Your task to perform on an android device: check storage Image 0: 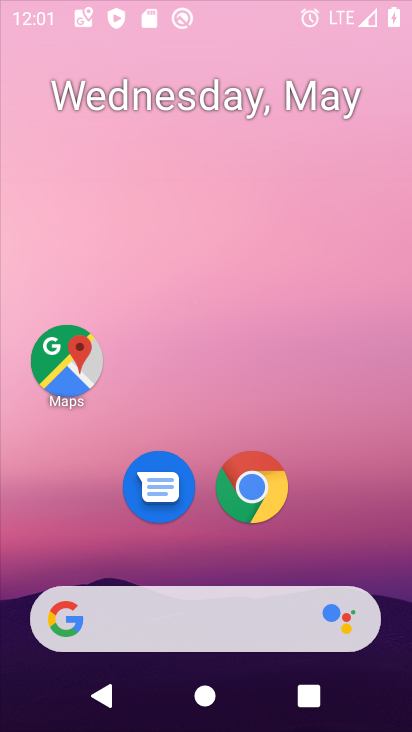
Step 0: click (195, 228)
Your task to perform on an android device: check storage Image 1: 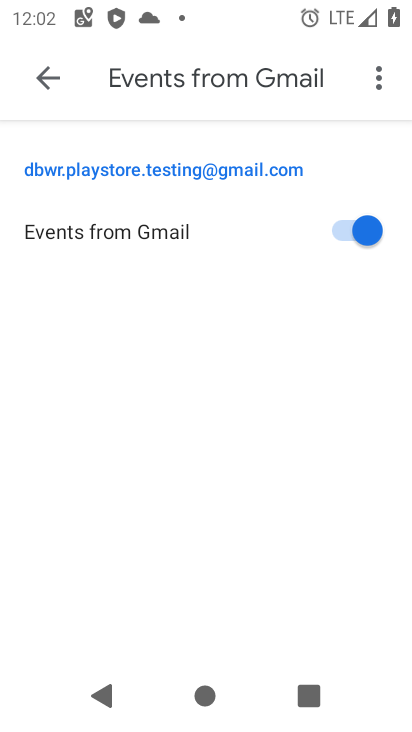
Step 1: drag from (183, 440) to (265, 232)
Your task to perform on an android device: check storage Image 2: 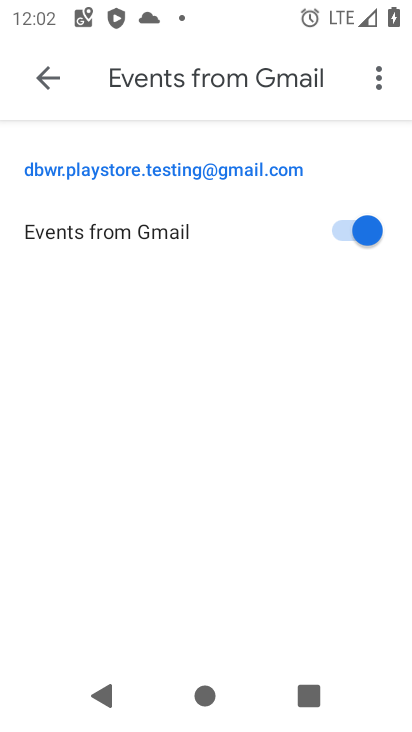
Step 2: press home button
Your task to perform on an android device: check storage Image 3: 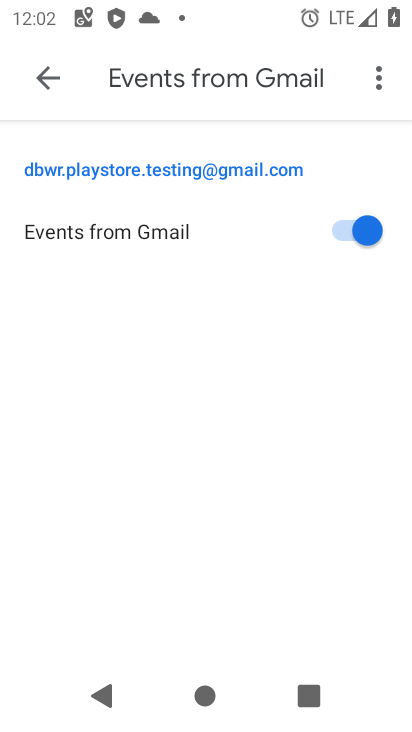
Step 3: drag from (133, 564) to (202, 46)
Your task to perform on an android device: check storage Image 4: 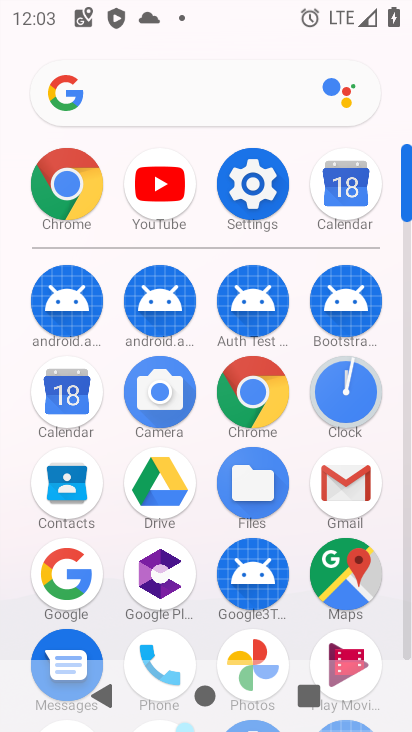
Step 4: click (231, 198)
Your task to perform on an android device: check storage Image 5: 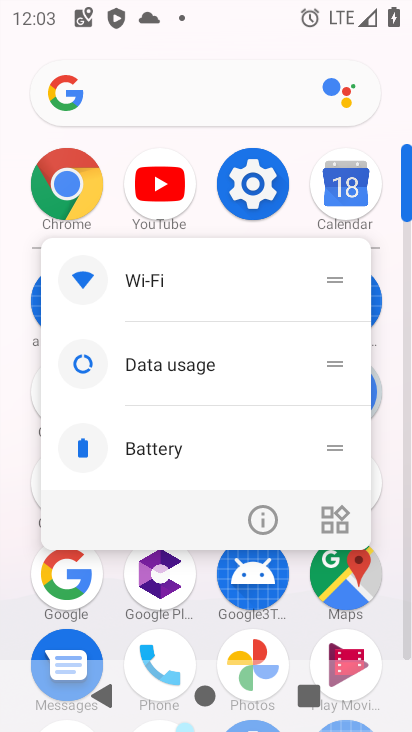
Step 5: click (264, 519)
Your task to perform on an android device: check storage Image 6: 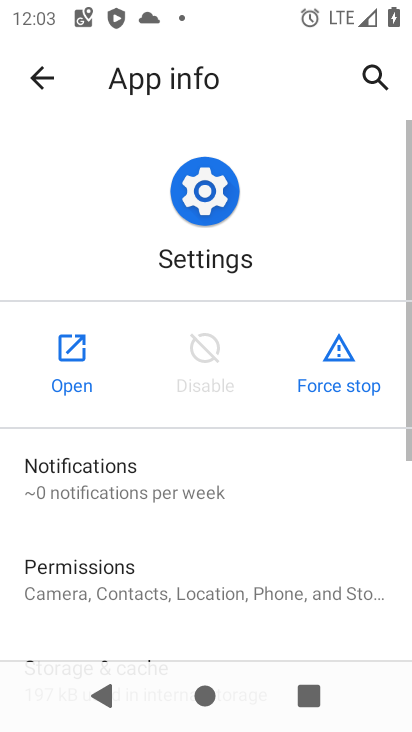
Step 6: click (78, 338)
Your task to perform on an android device: check storage Image 7: 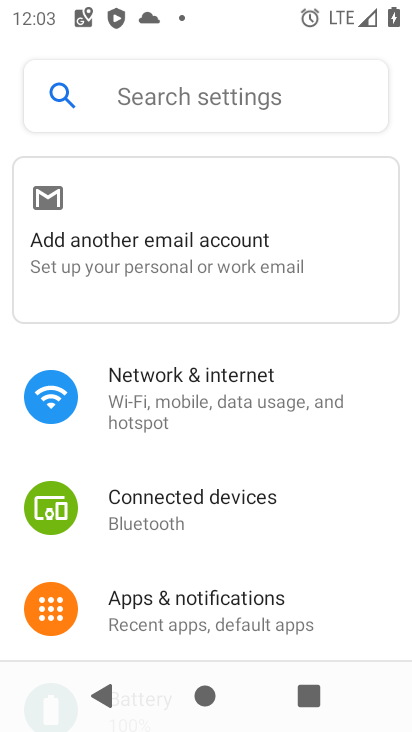
Step 7: drag from (243, 622) to (272, 161)
Your task to perform on an android device: check storage Image 8: 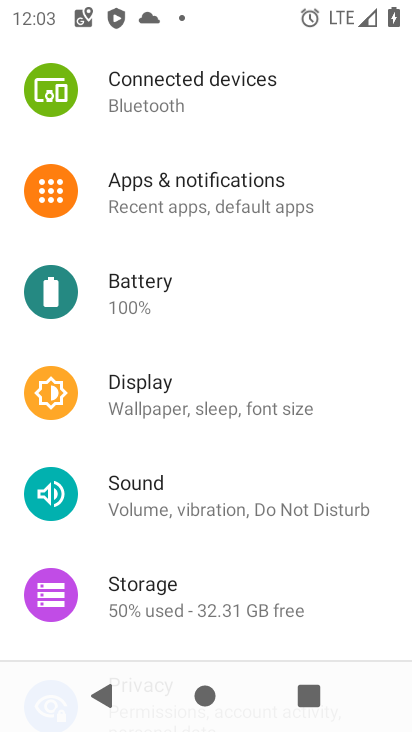
Step 8: drag from (182, 538) to (244, 231)
Your task to perform on an android device: check storage Image 9: 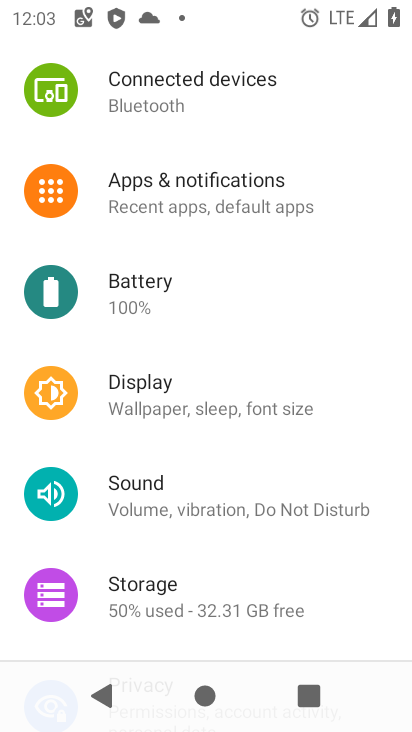
Step 9: drag from (178, 538) to (256, 136)
Your task to perform on an android device: check storage Image 10: 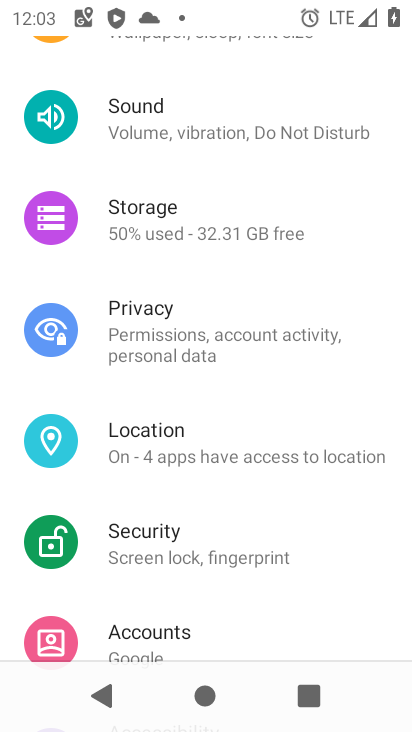
Step 10: click (208, 243)
Your task to perform on an android device: check storage Image 11: 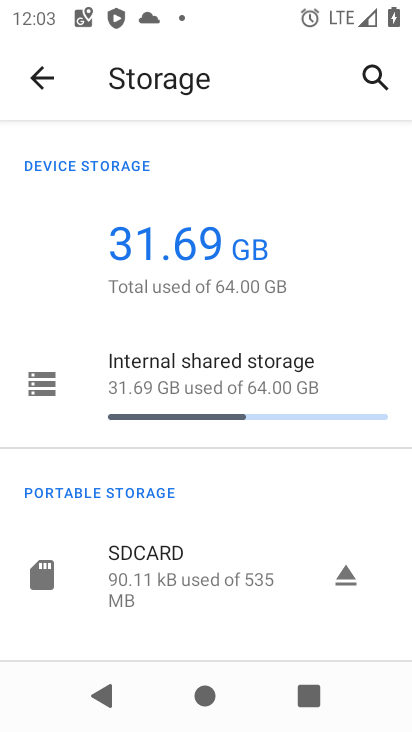
Step 11: task complete